Your task to perform on an android device: Open Yahoo.com Image 0: 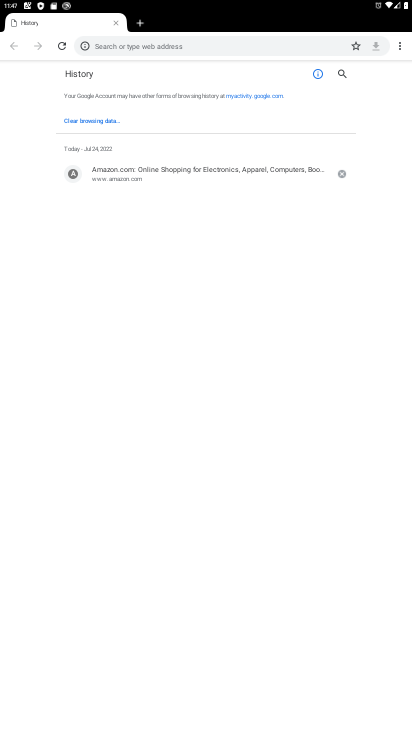
Step 0: press home button
Your task to perform on an android device: Open Yahoo.com Image 1: 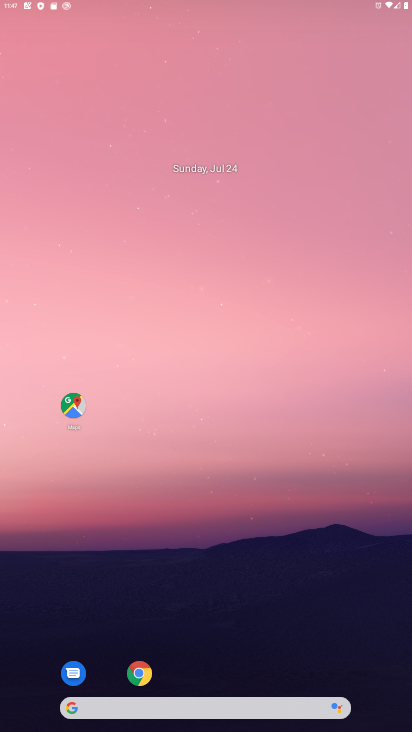
Step 1: drag from (283, 636) to (234, 1)
Your task to perform on an android device: Open Yahoo.com Image 2: 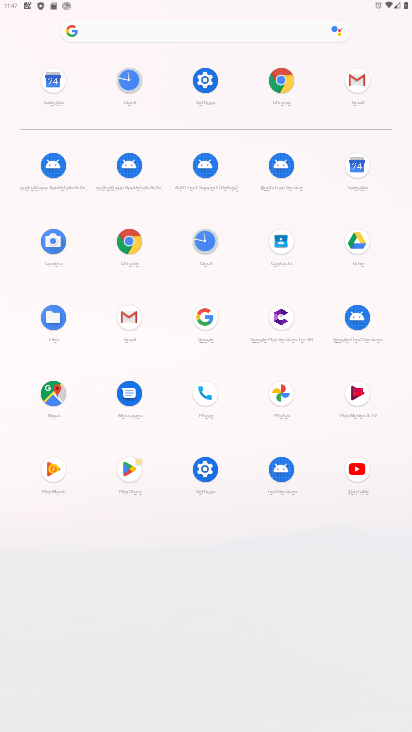
Step 2: click (129, 278)
Your task to perform on an android device: Open Yahoo.com Image 3: 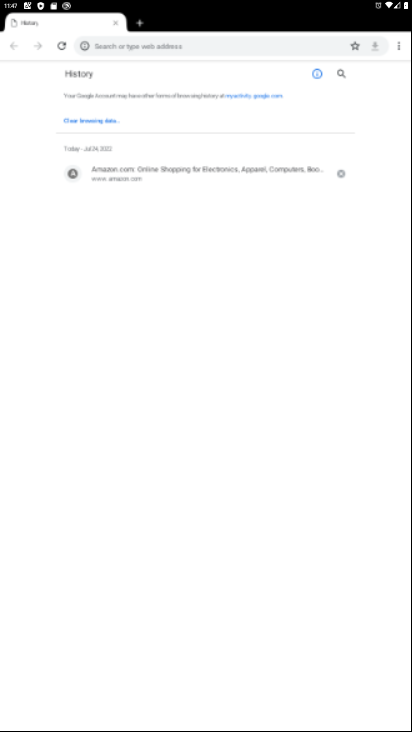
Step 3: click (129, 248)
Your task to perform on an android device: Open Yahoo.com Image 4: 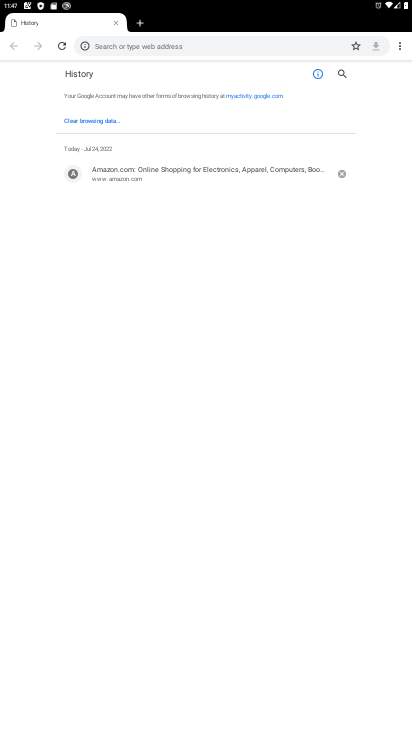
Step 4: click (159, 52)
Your task to perform on an android device: Open Yahoo.com Image 5: 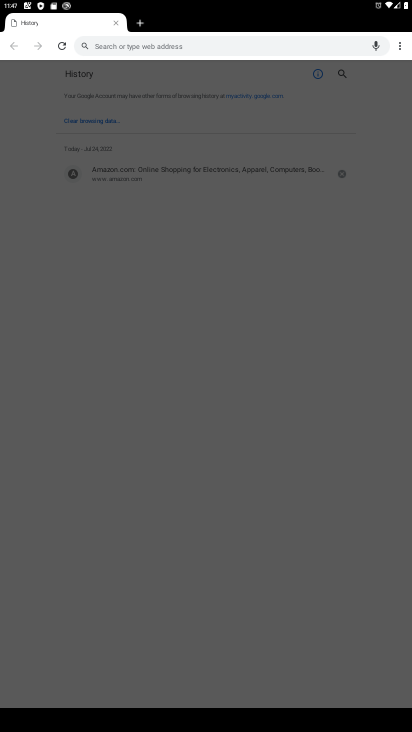
Step 5: type "yahoo.com"
Your task to perform on an android device: Open Yahoo.com Image 6: 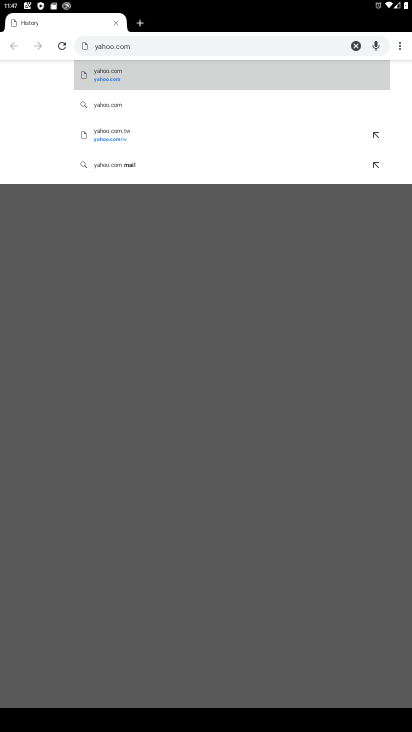
Step 6: click (118, 68)
Your task to perform on an android device: Open Yahoo.com Image 7: 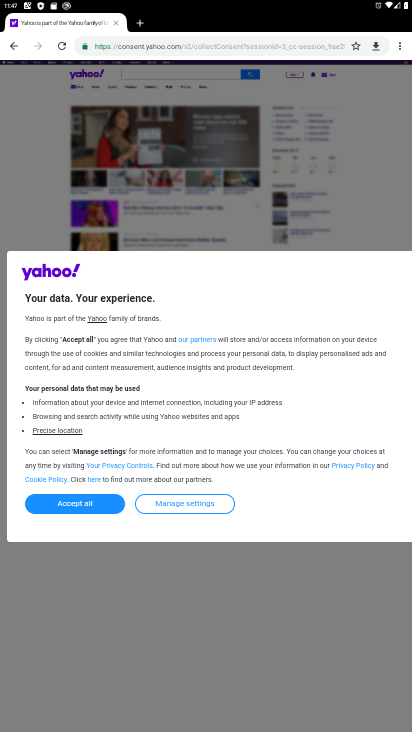
Step 7: task complete